Your task to perform on an android device: uninstall "Adobe Acrobat Reader" Image 0: 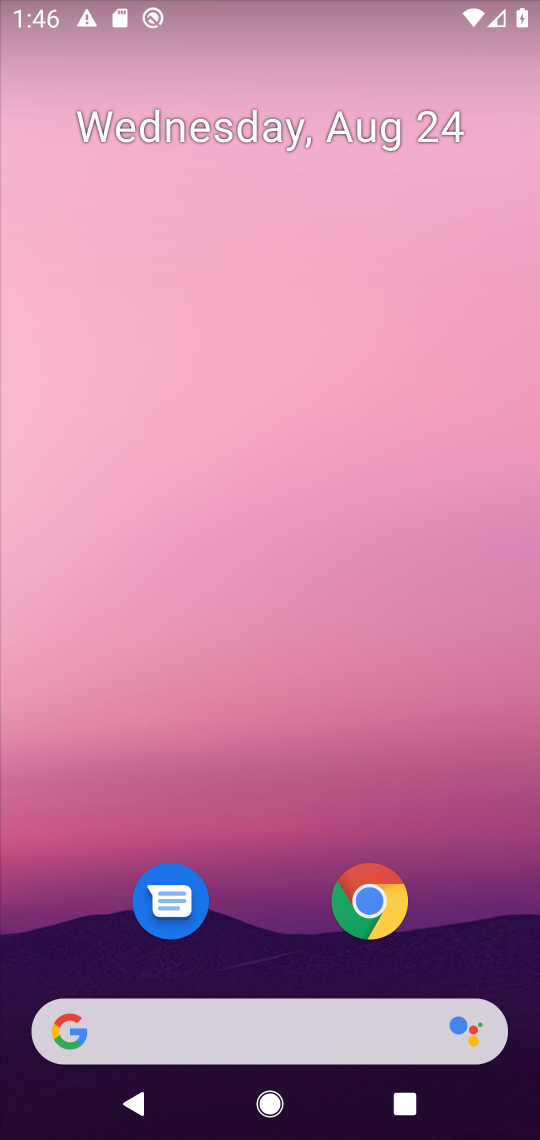
Step 0: drag from (262, 939) to (374, 130)
Your task to perform on an android device: uninstall "Adobe Acrobat Reader" Image 1: 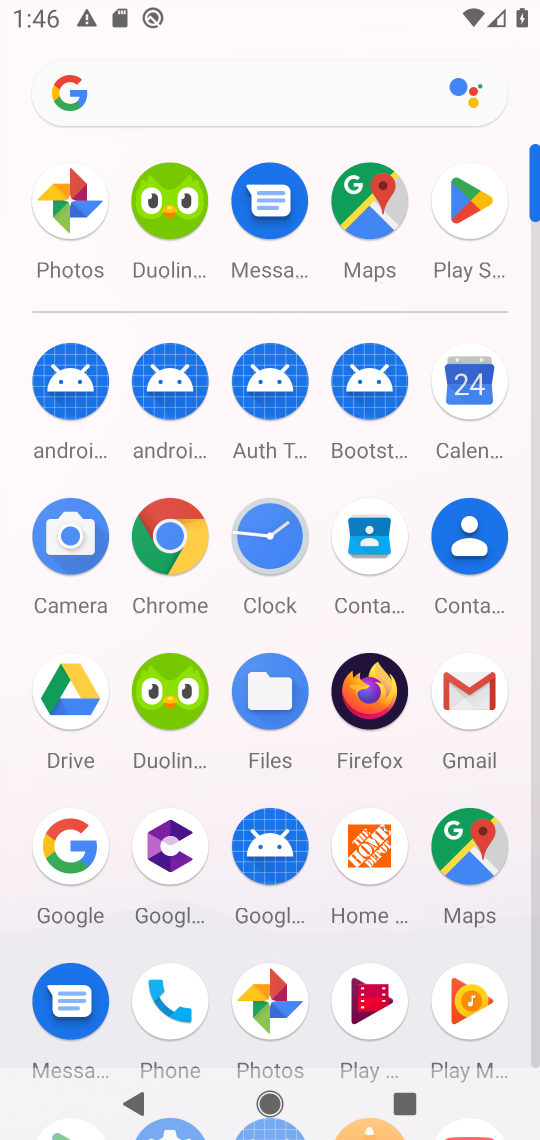
Step 1: click (477, 205)
Your task to perform on an android device: uninstall "Adobe Acrobat Reader" Image 2: 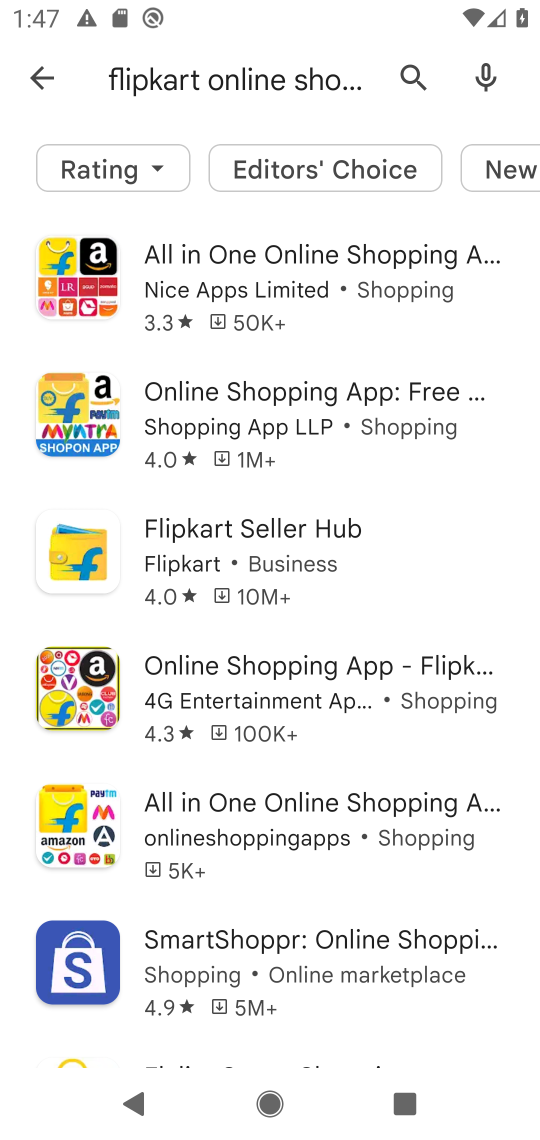
Step 2: click (413, 73)
Your task to perform on an android device: uninstall "Adobe Acrobat Reader" Image 3: 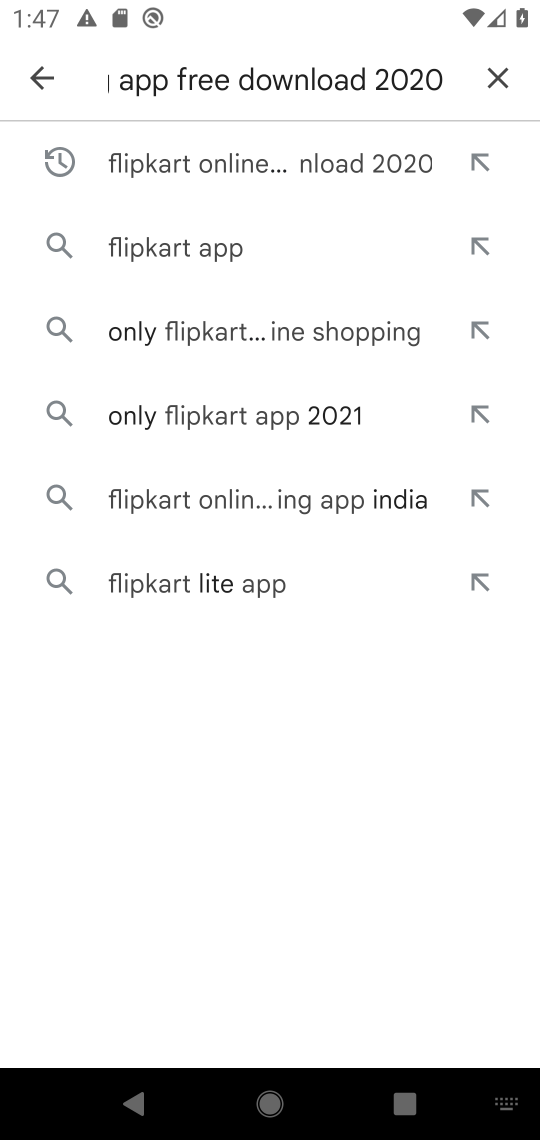
Step 3: click (481, 67)
Your task to perform on an android device: uninstall "Adobe Acrobat Reader" Image 4: 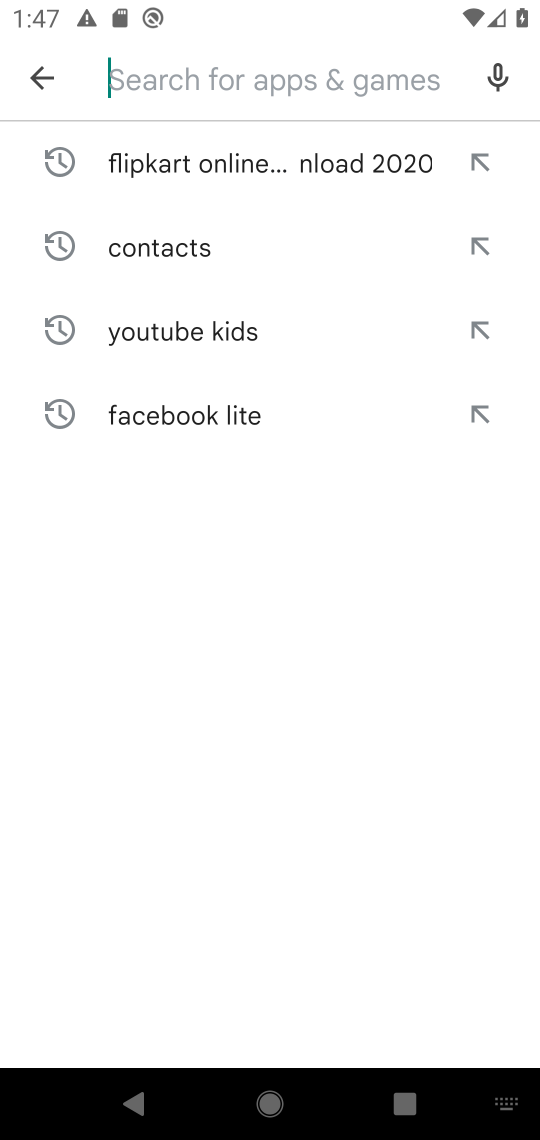
Step 4: click (186, 81)
Your task to perform on an android device: uninstall "Adobe Acrobat Reader" Image 5: 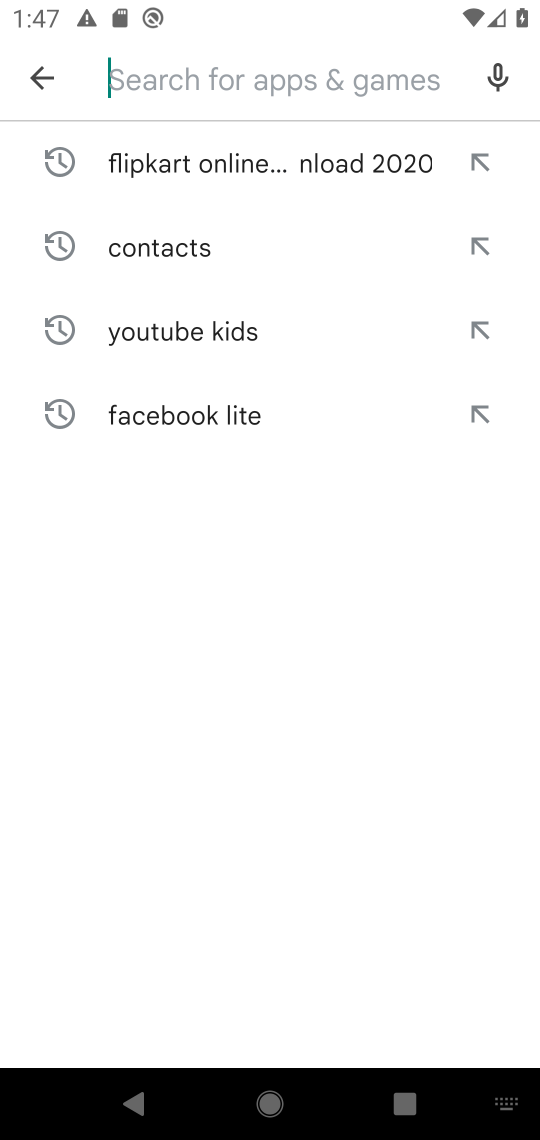
Step 5: type "Adobe Acrobat Reader"
Your task to perform on an android device: uninstall "Adobe Acrobat Reader" Image 6: 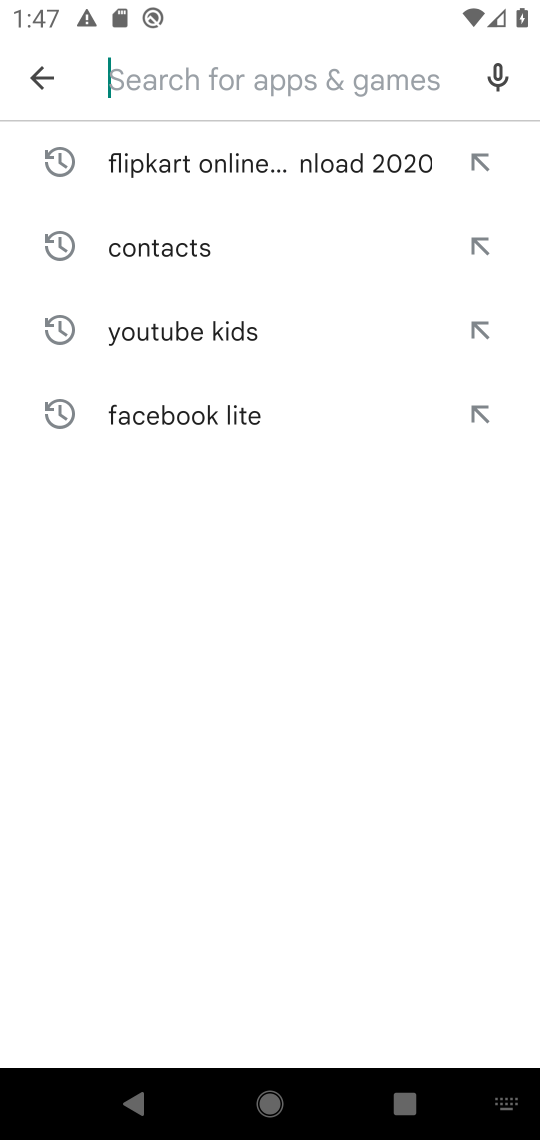
Step 6: click (189, 719)
Your task to perform on an android device: uninstall "Adobe Acrobat Reader" Image 7: 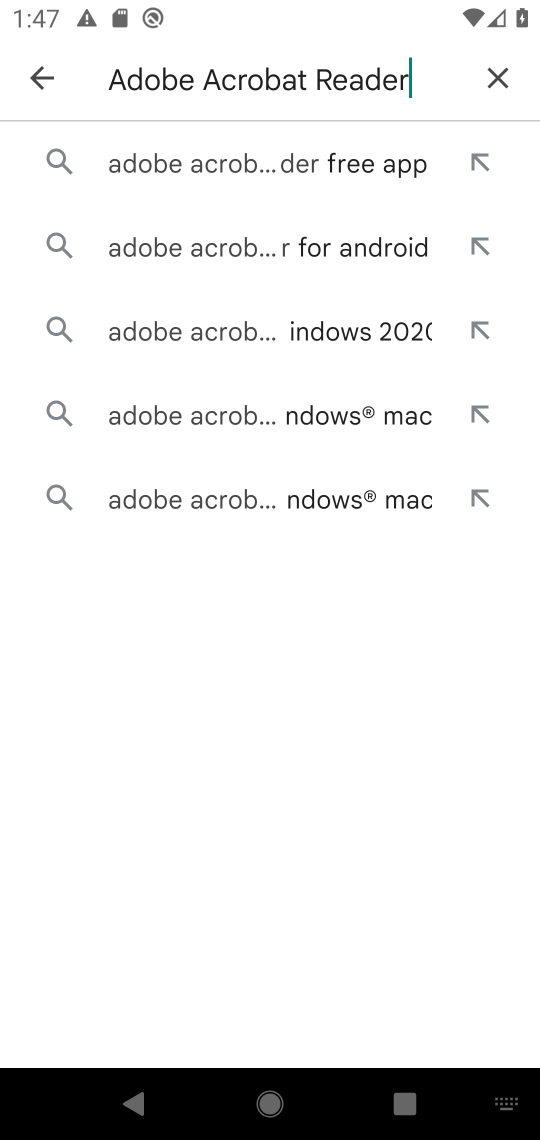
Step 7: click (283, 163)
Your task to perform on an android device: uninstall "Adobe Acrobat Reader" Image 8: 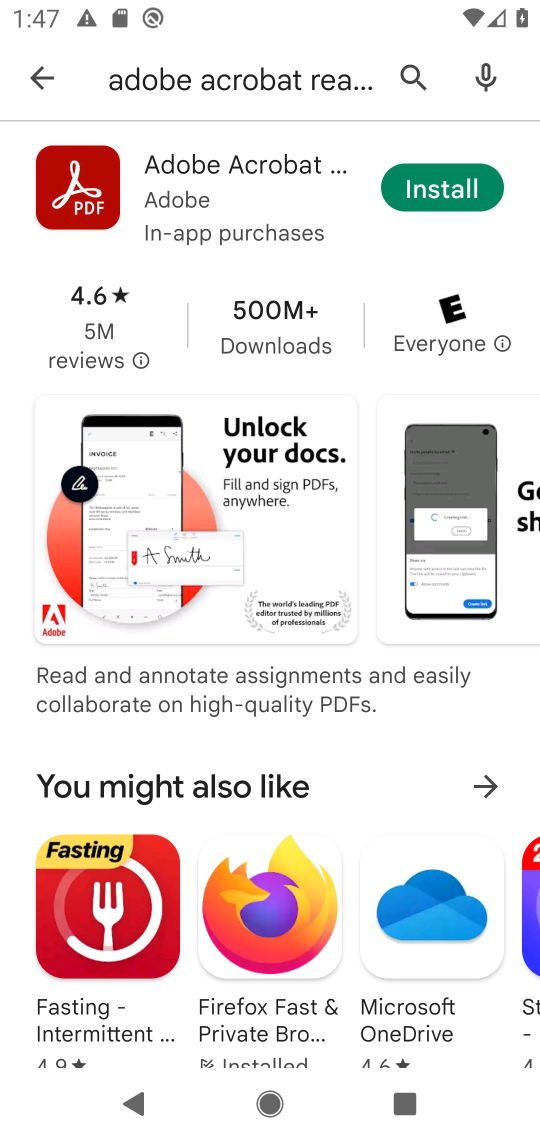
Step 8: click (233, 168)
Your task to perform on an android device: uninstall "Adobe Acrobat Reader" Image 9: 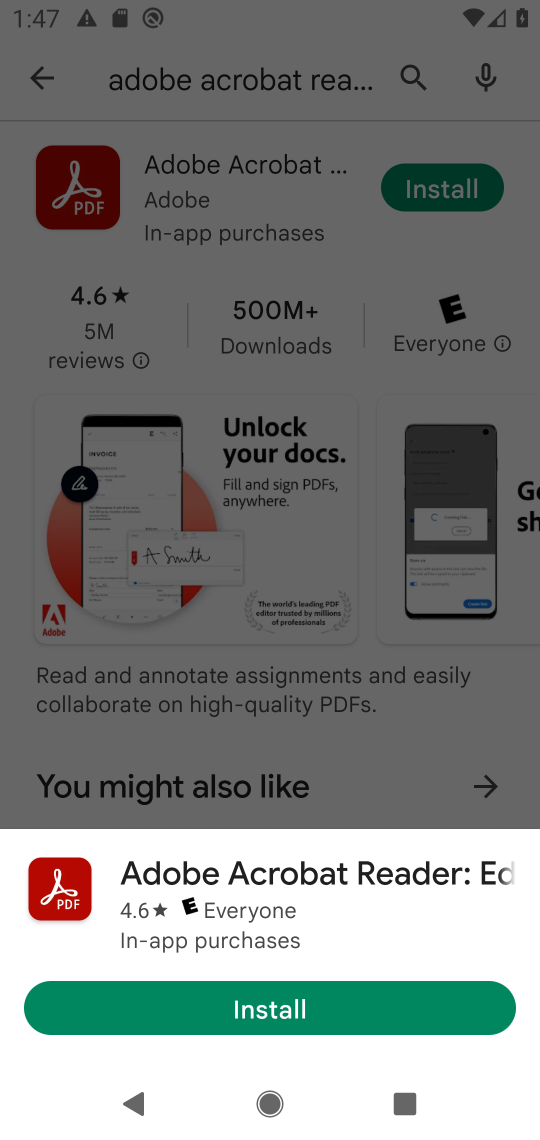
Step 9: task complete